Your task to perform on an android device: turn off sleep mode Image 0: 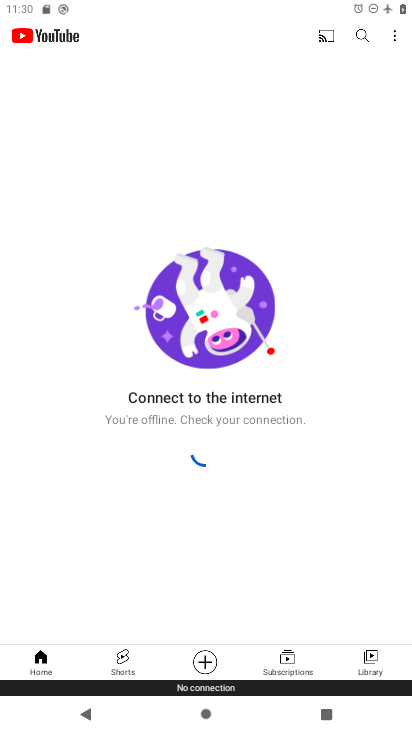
Step 0: press home button
Your task to perform on an android device: turn off sleep mode Image 1: 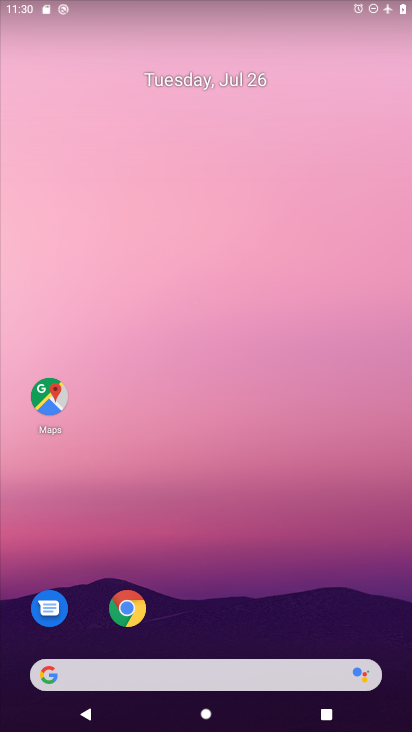
Step 1: drag from (263, 604) to (266, 166)
Your task to perform on an android device: turn off sleep mode Image 2: 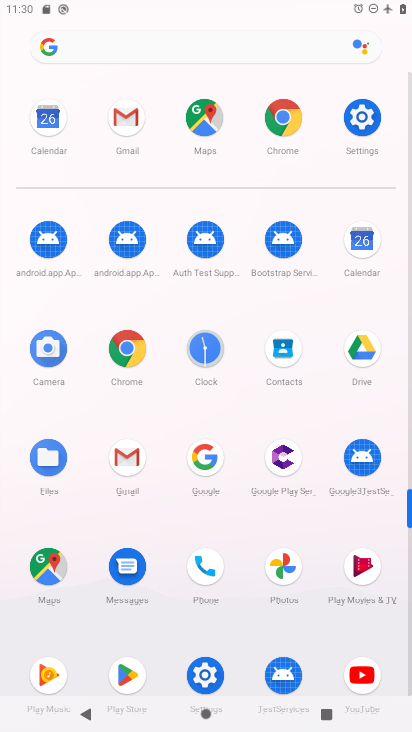
Step 2: click (215, 668)
Your task to perform on an android device: turn off sleep mode Image 3: 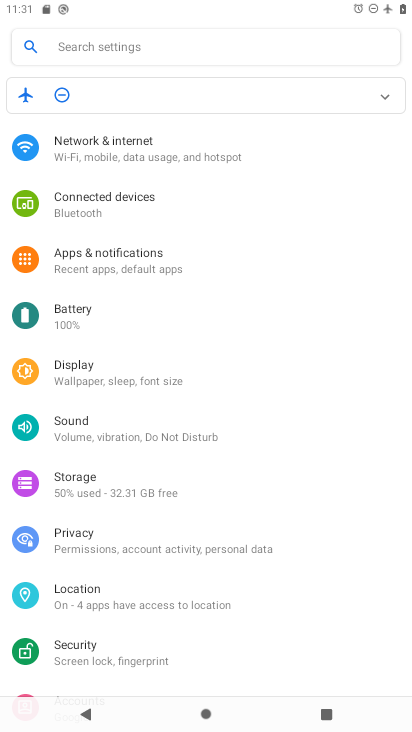
Step 3: click (138, 378)
Your task to perform on an android device: turn off sleep mode Image 4: 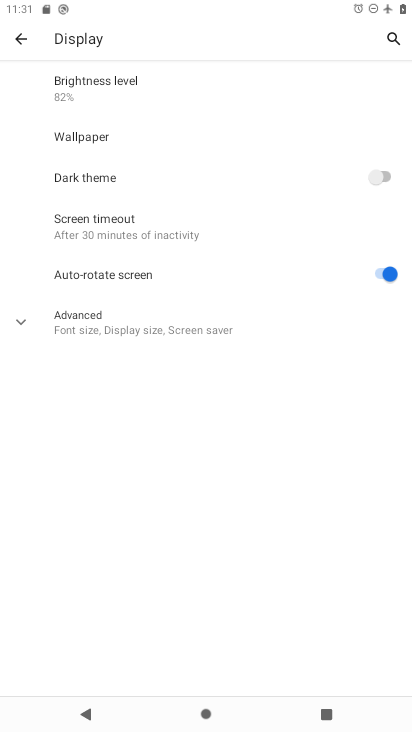
Step 4: click (131, 230)
Your task to perform on an android device: turn off sleep mode Image 5: 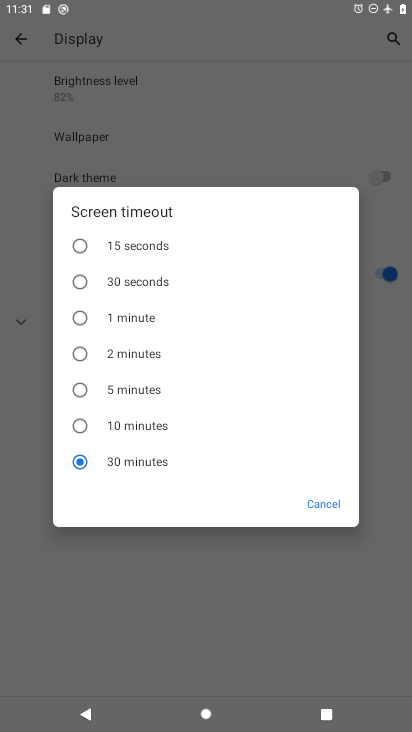
Step 5: task complete